Your task to perform on an android device: set the stopwatch Image 0: 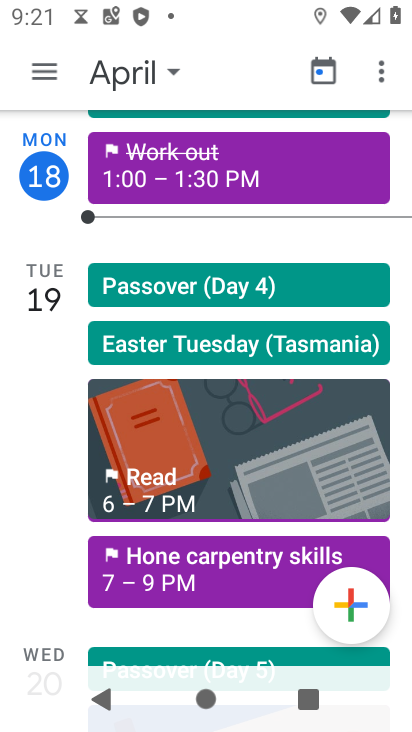
Step 0: press back button
Your task to perform on an android device: set the stopwatch Image 1: 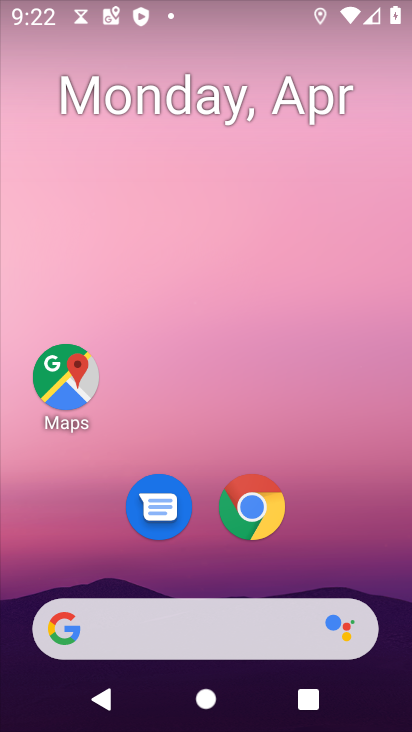
Step 1: drag from (316, 540) to (350, 102)
Your task to perform on an android device: set the stopwatch Image 2: 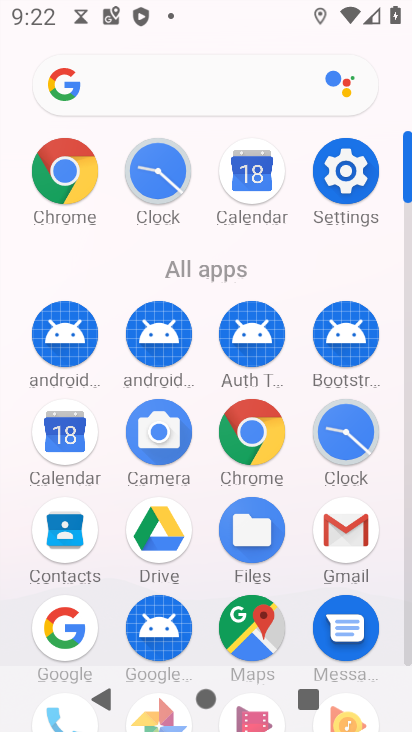
Step 2: click (351, 439)
Your task to perform on an android device: set the stopwatch Image 3: 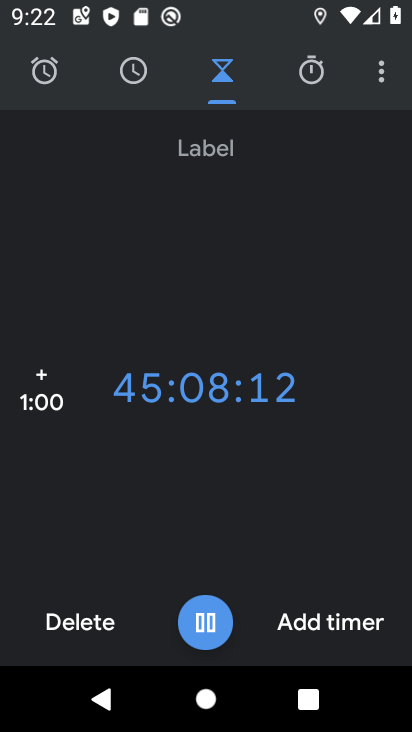
Step 3: click (304, 73)
Your task to perform on an android device: set the stopwatch Image 4: 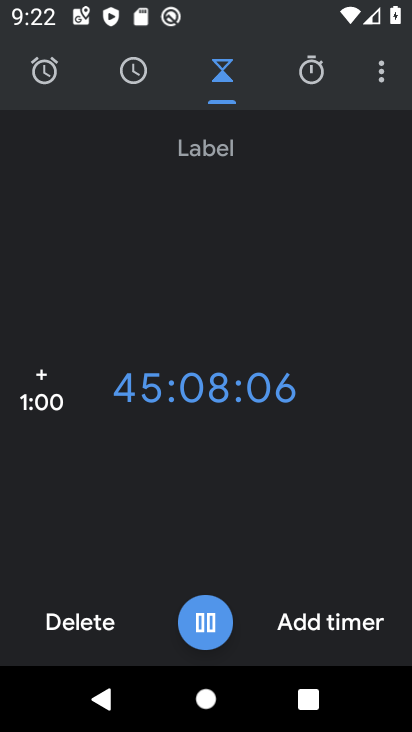
Step 4: click (298, 85)
Your task to perform on an android device: set the stopwatch Image 5: 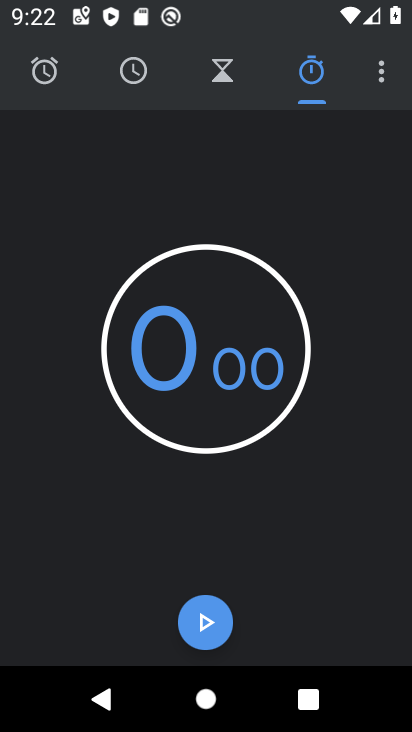
Step 5: click (203, 627)
Your task to perform on an android device: set the stopwatch Image 6: 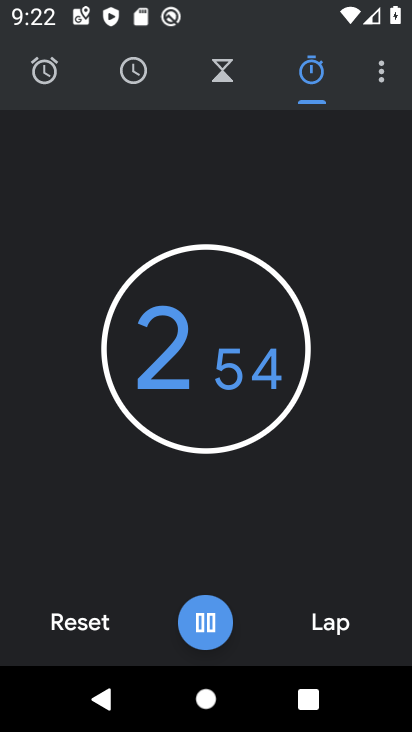
Step 6: task complete